Your task to perform on an android device: What is the recent news? Image 0: 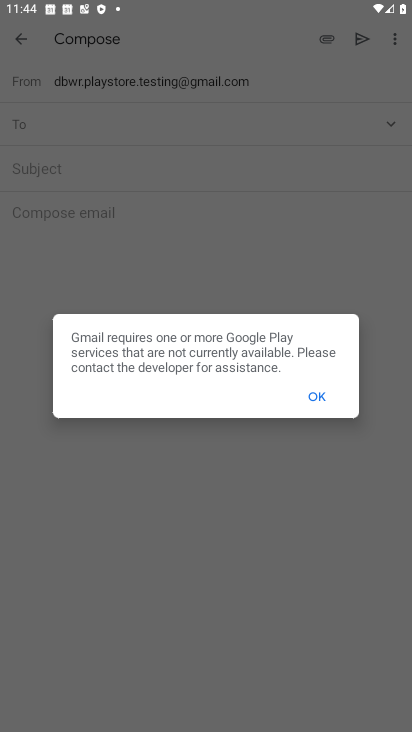
Step 0: click (303, 413)
Your task to perform on an android device: What is the recent news? Image 1: 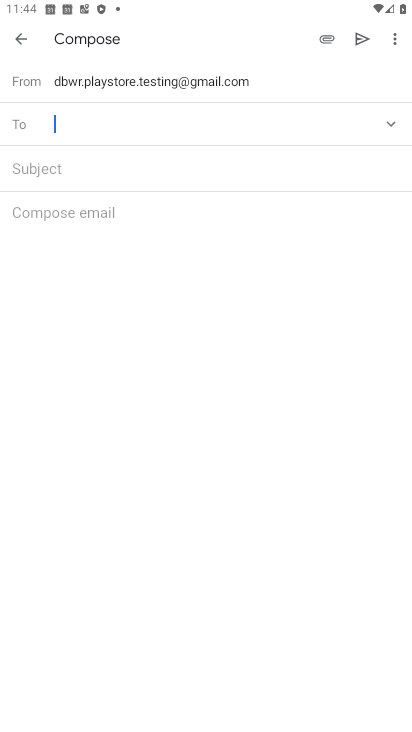
Step 1: press home button
Your task to perform on an android device: What is the recent news? Image 2: 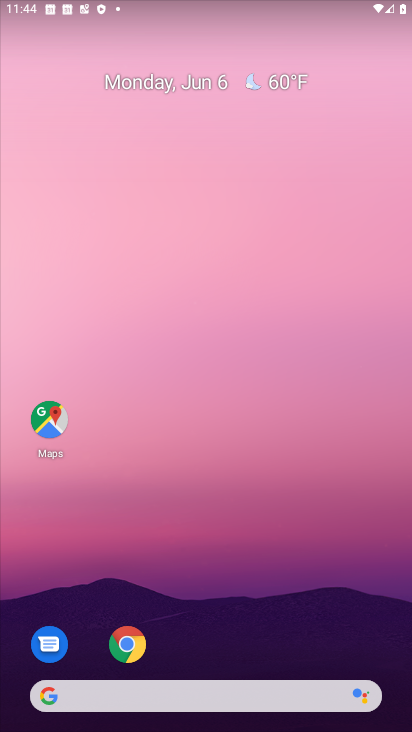
Step 2: drag from (192, 663) to (290, 171)
Your task to perform on an android device: What is the recent news? Image 3: 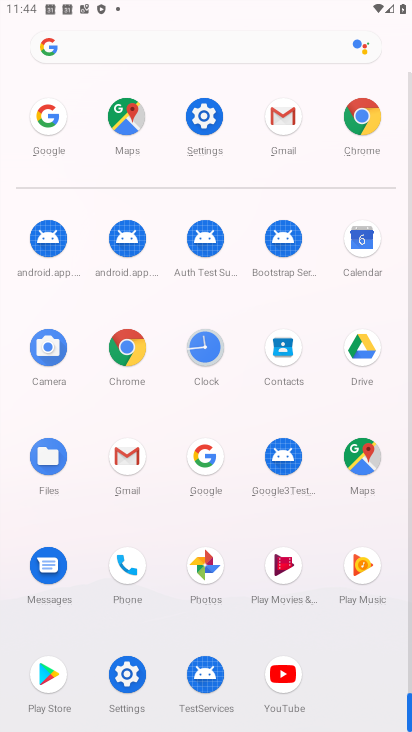
Step 3: drag from (197, 515) to (263, 287)
Your task to perform on an android device: What is the recent news? Image 4: 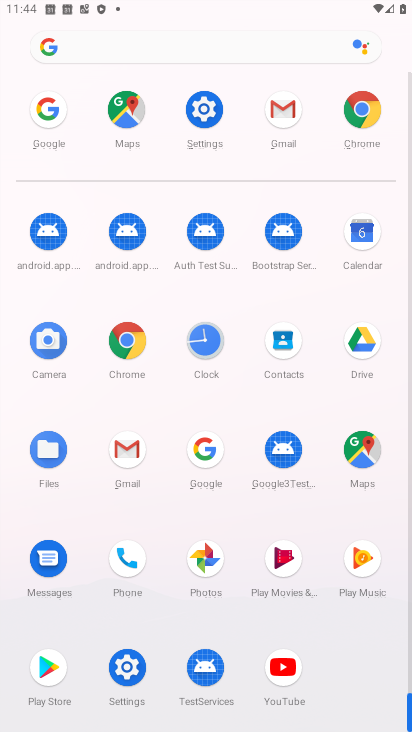
Step 4: click (203, 475)
Your task to perform on an android device: What is the recent news? Image 5: 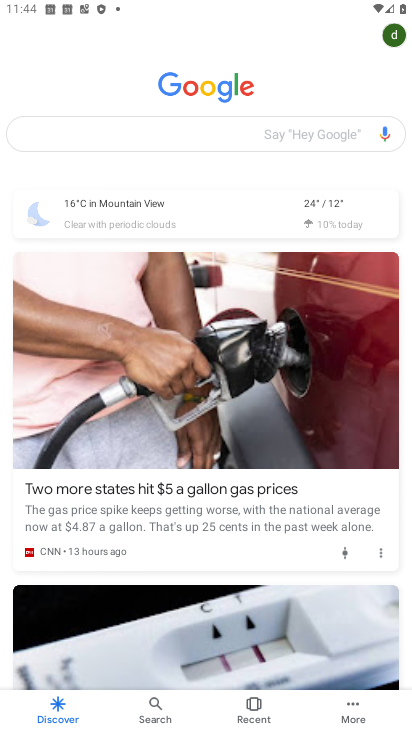
Step 5: click (246, 139)
Your task to perform on an android device: What is the recent news? Image 6: 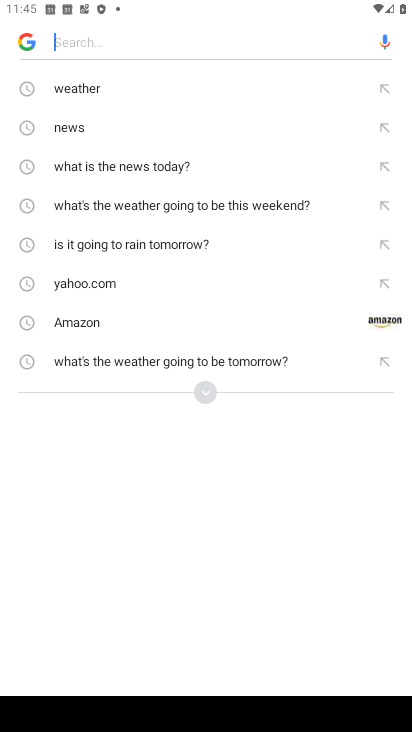
Step 6: click (97, 132)
Your task to perform on an android device: What is the recent news? Image 7: 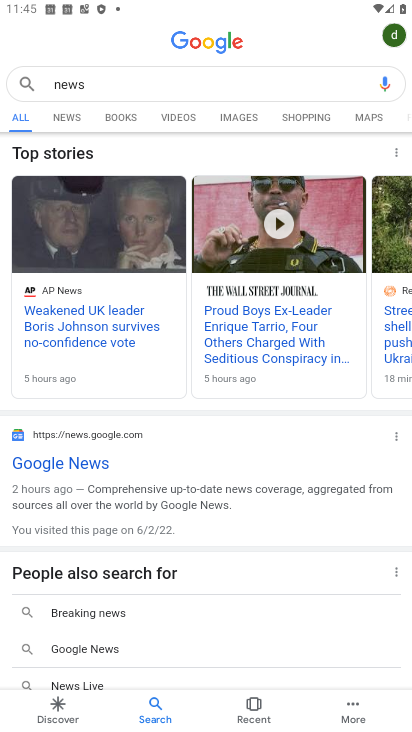
Step 7: click (62, 117)
Your task to perform on an android device: What is the recent news? Image 8: 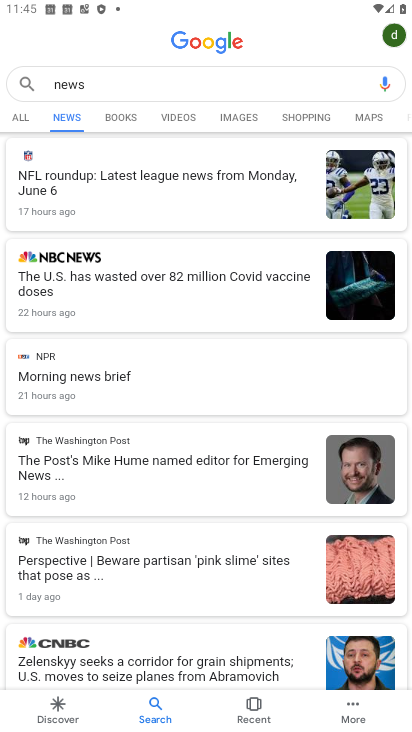
Step 8: task complete